Your task to perform on an android device: Search for hotels in Orlando Image 0: 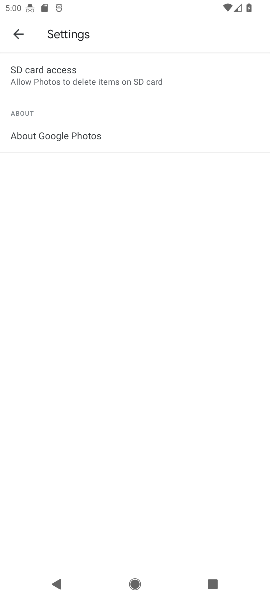
Step 0: press home button
Your task to perform on an android device: Search for hotels in Orlando Image 1: 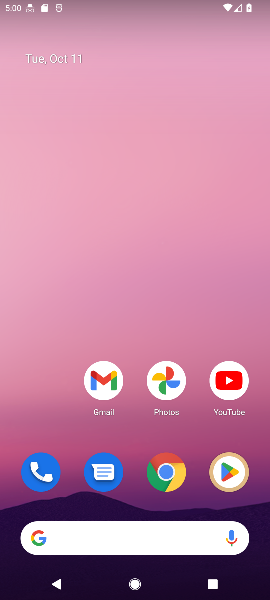
Step 1: click (171, 476)
Your task to perform on an android device: Search for hotels in Orlando Image 2: 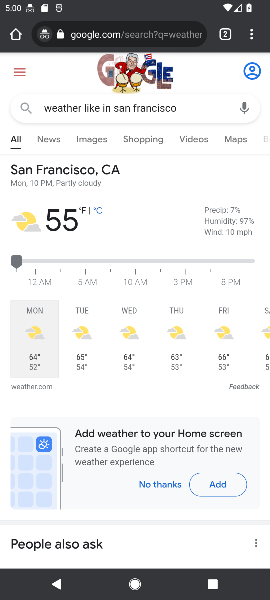
Step 2: click (113, 32)
Your task to perform on an android device: Search for hotels in Orlando Image 3: 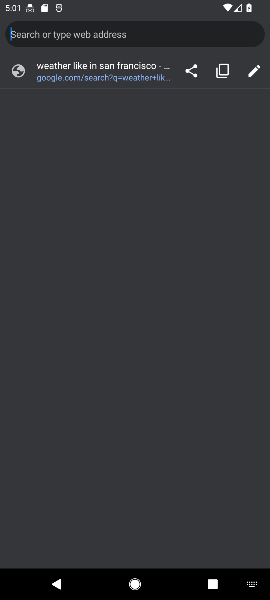
Step 3: type "Search for hotels in Orlando"
Your task to perform on an android device: Search for hotels in Orlando Image 4: 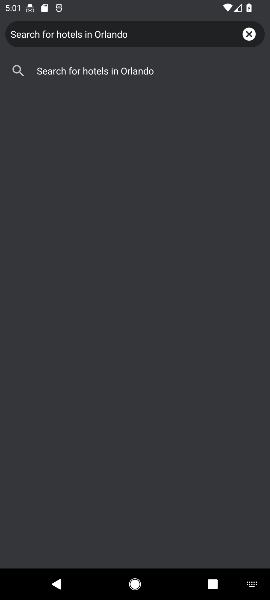
Step 4: click (158, 73)
Your task to perform on an android device: Search for hotels in Orlando Image 5: 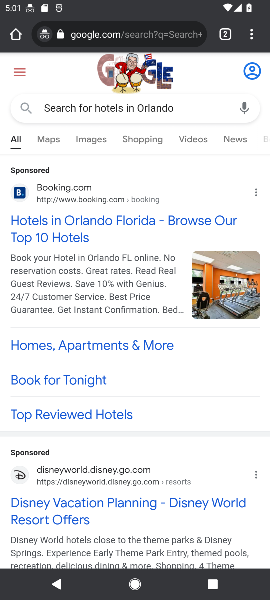
Step 5: drag from (108, 490) to (133, 265)
Your task to perform on an android device: Search for hotels in Orlando Image 6: 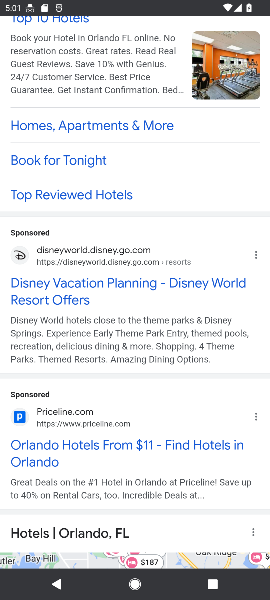
Step 6: drag from (99, 455) to (156, 87)
Your task to perform on an android device: Search for hotels in Orlando Image 7: 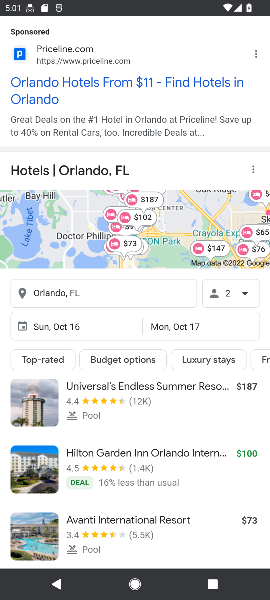
Step 7: drag from (166, 510) to (196, 198)
Your task to perform on an android device: Search for hotels in Orlando Image 8: 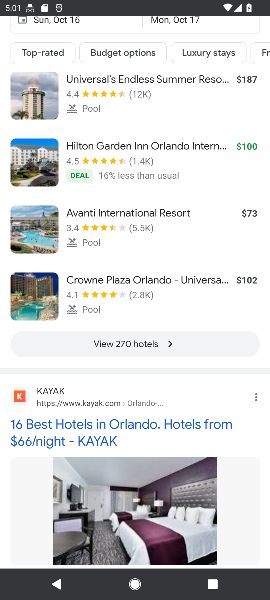
Step 8: click (49, 345)
Your task to perform on an android device: Search for hotels in Orlando Image 9: 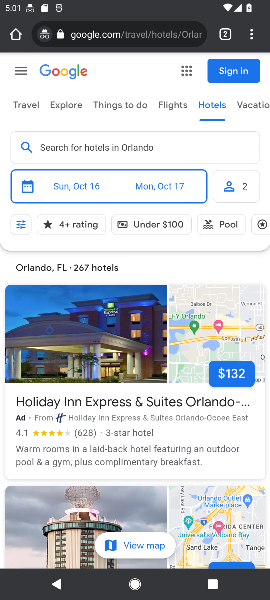
Step 9: task complete